Your task to perform on an android device: Search for the new ikea dresser Image 0: 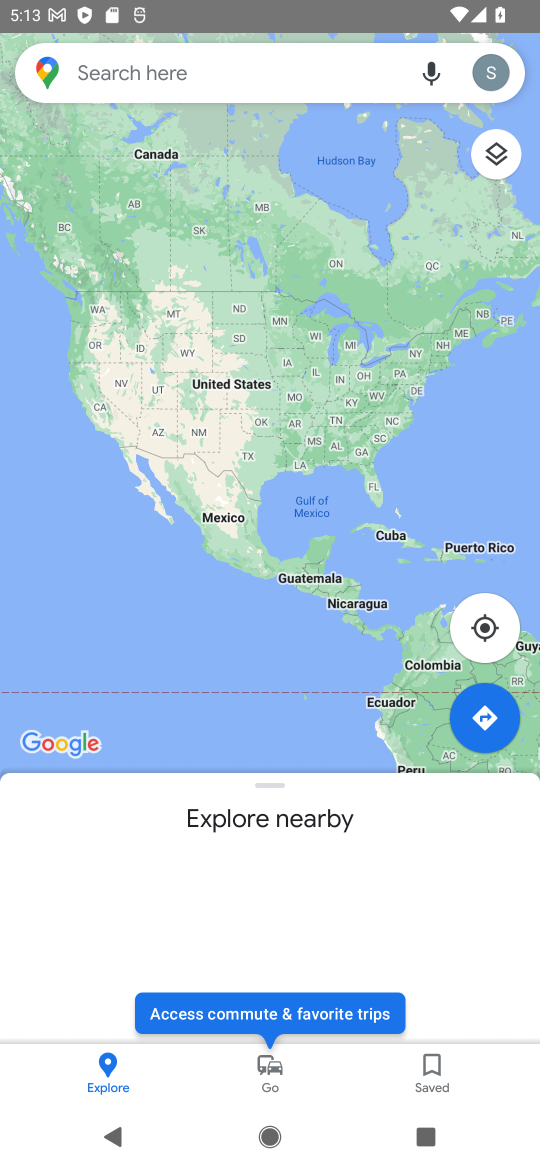
Step 0: press home button
Your task to perform on an android device: Search for the new ikea dresser Image 1: 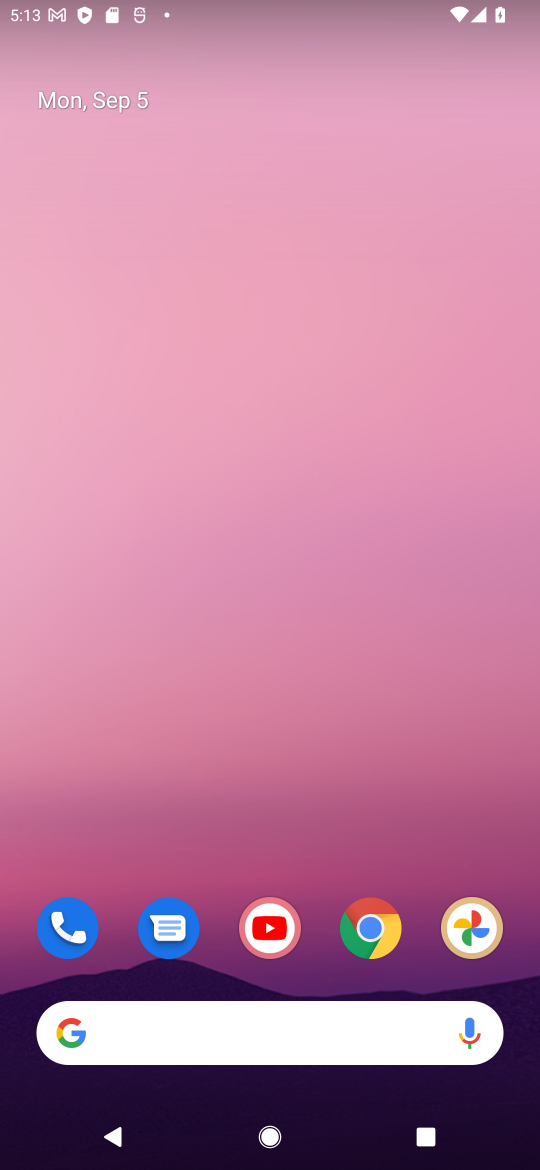
Step 1: click (382, 933)
Your task to perform on an android device: Search for the new ikea dresser Image 2: 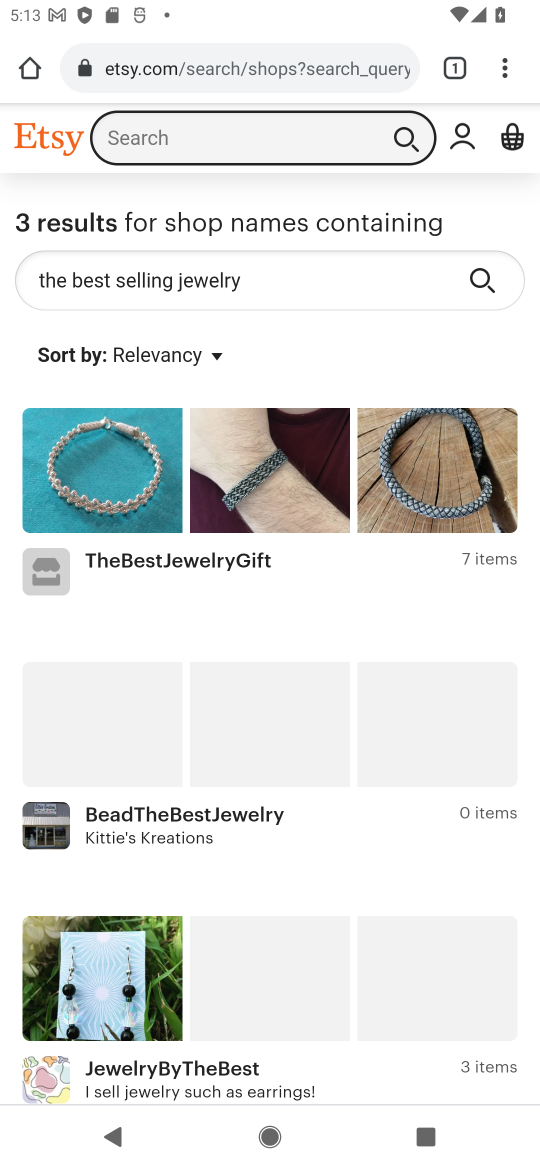
Step 2: click (239, 72)
Your task to perform on an android device: Search for the new ikea dresser Image 3: 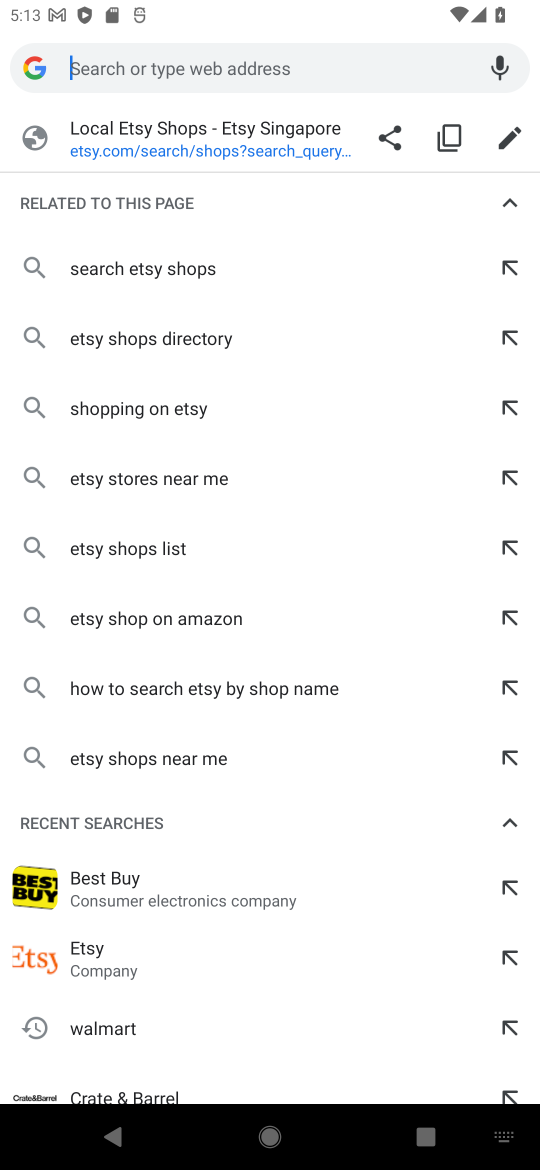
Step 3: type "the new ikea dresser"
Your task to perform on an android device: Search for the new ikea dresser Image 4: 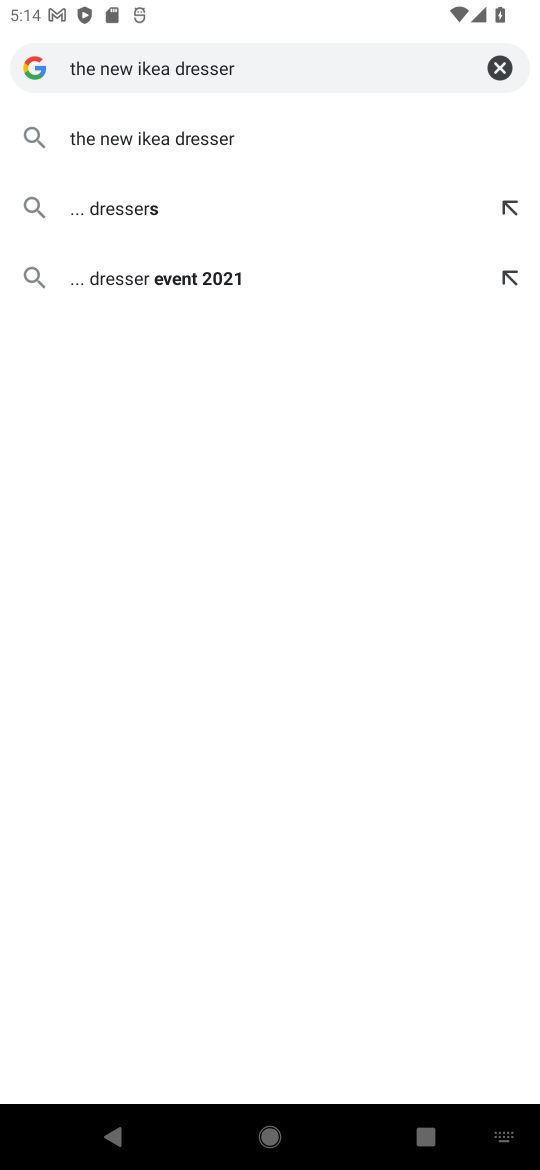
Step 4: click (217, 138)
Your task to perform on an android device: Search for the new ikea dresser Image 5: 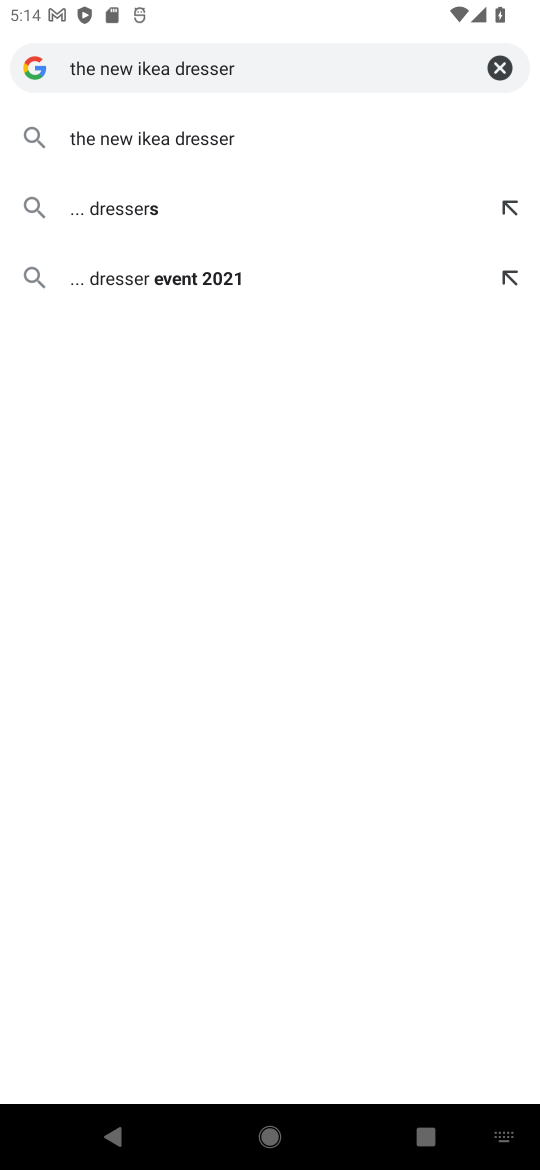
Step 5: click (217, 138)
Your task to perform on an android device: Search for the new ikea dresser Image 6: 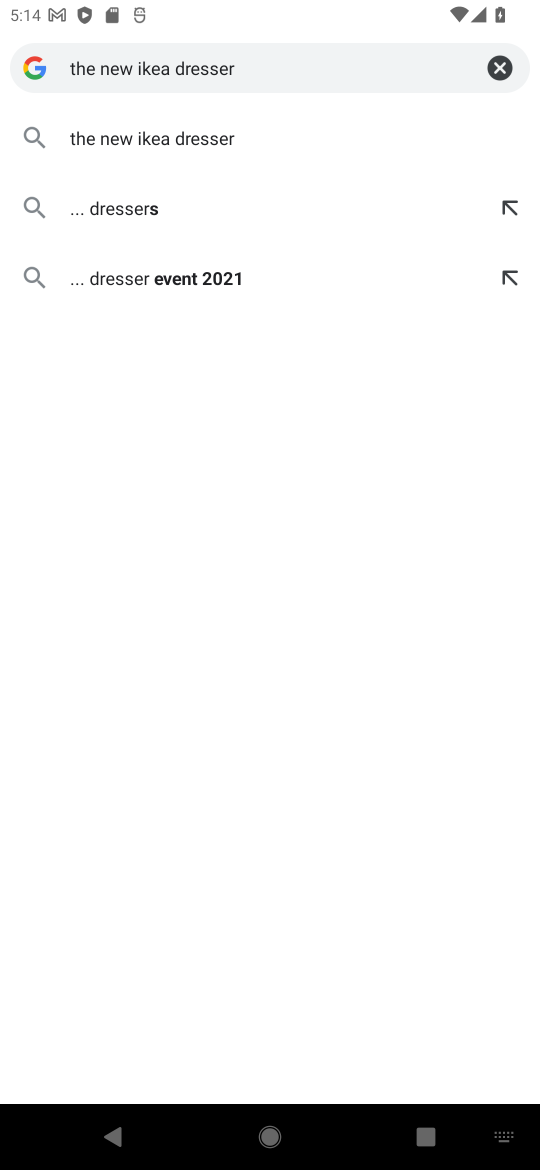
Step 6: click (95, 140)
Your task to perform on an android device: Search for the new ikea dresser Image 7: 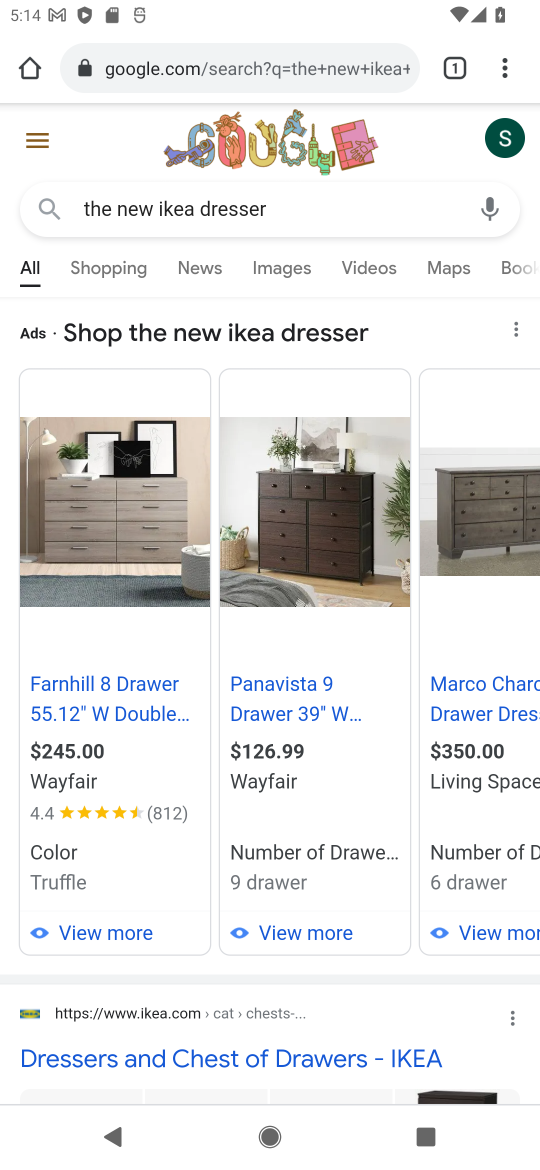
Step 7: task complete